Your task to perform on an android device: Search for the best pizza restaurants on Maps Image 0: 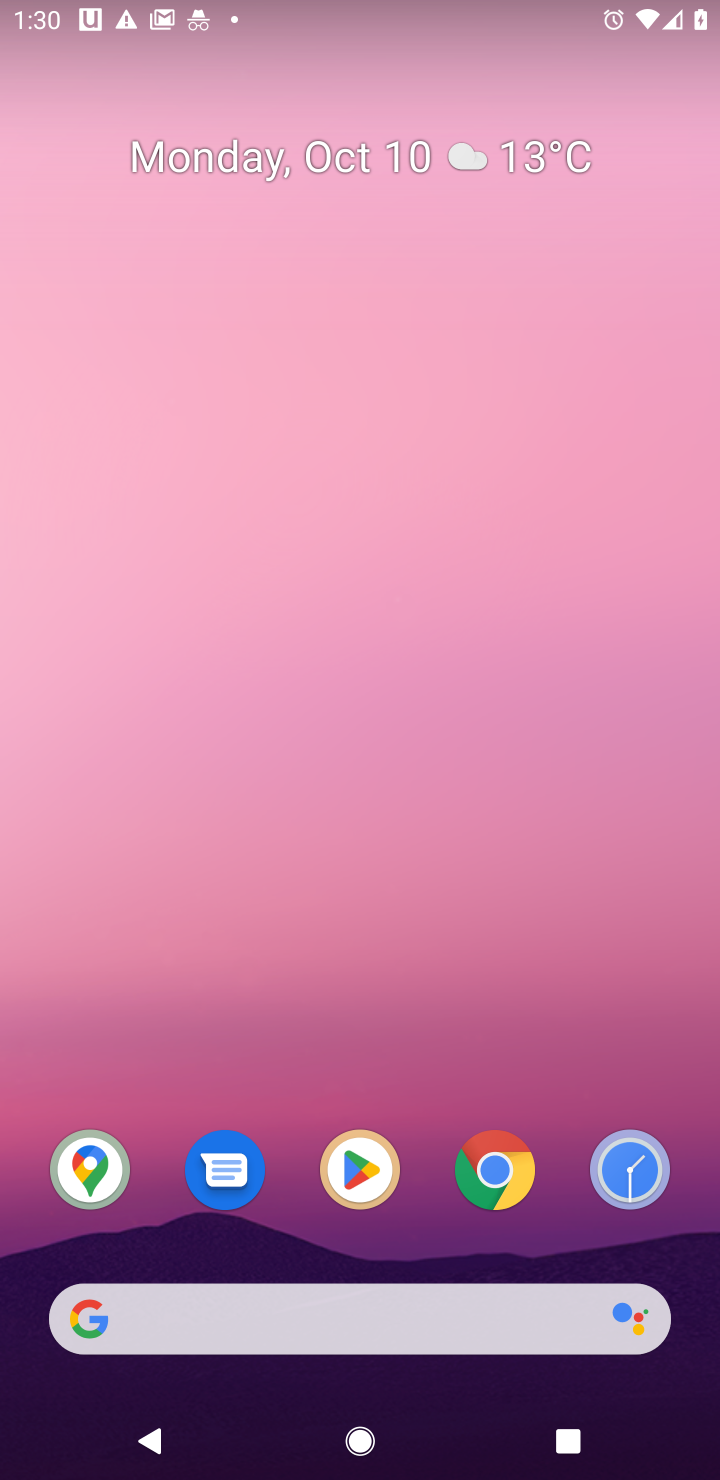
Step 0: click (96, 1170)
Your task to perform on an android device: Search for the best pizza restaurants on Maps Image 1: 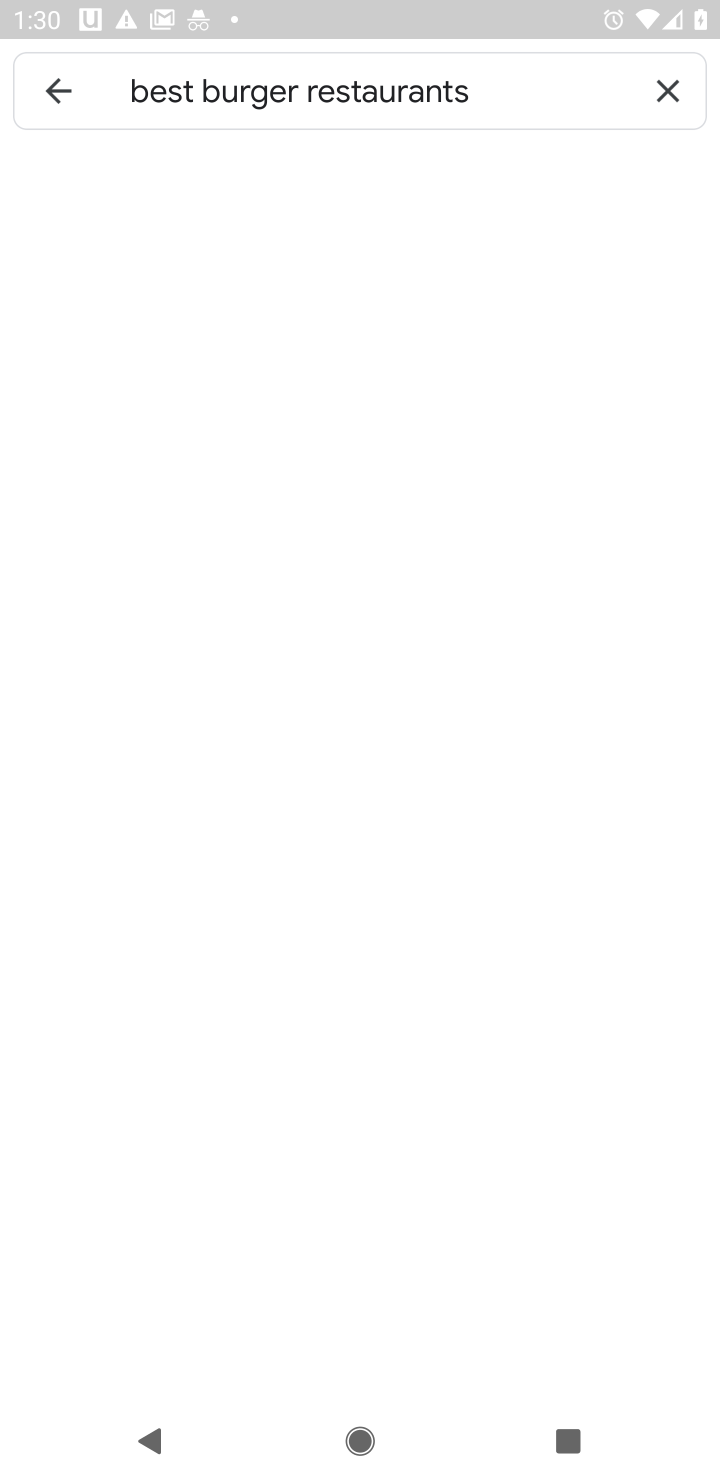
Step 1: click (658, 91)
Your task to perform on an android device: Search for the best pizza restaurants on Maps Image 2: 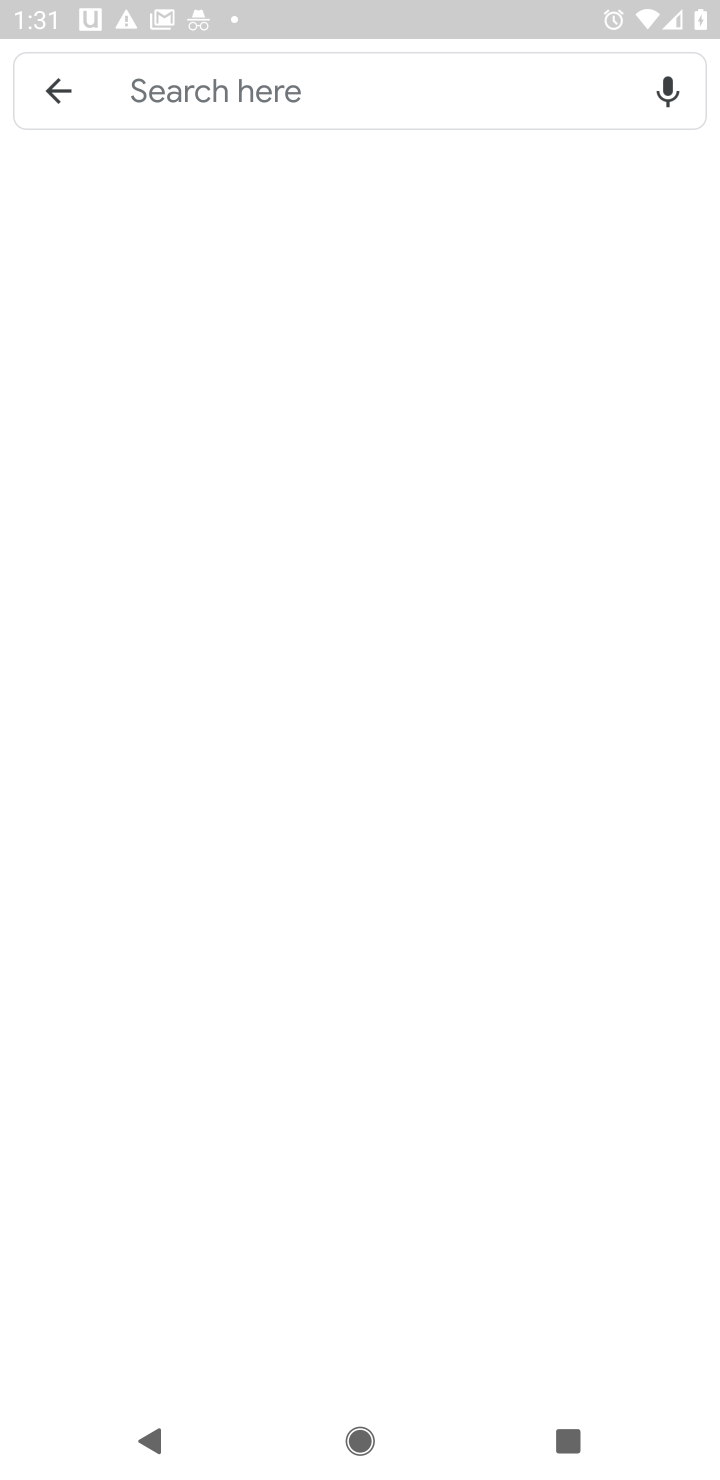
Step 2: type "best pizza restaurants "
Your task to perform on an android device: Search for the best pizza restaurants on Maps Image 3: 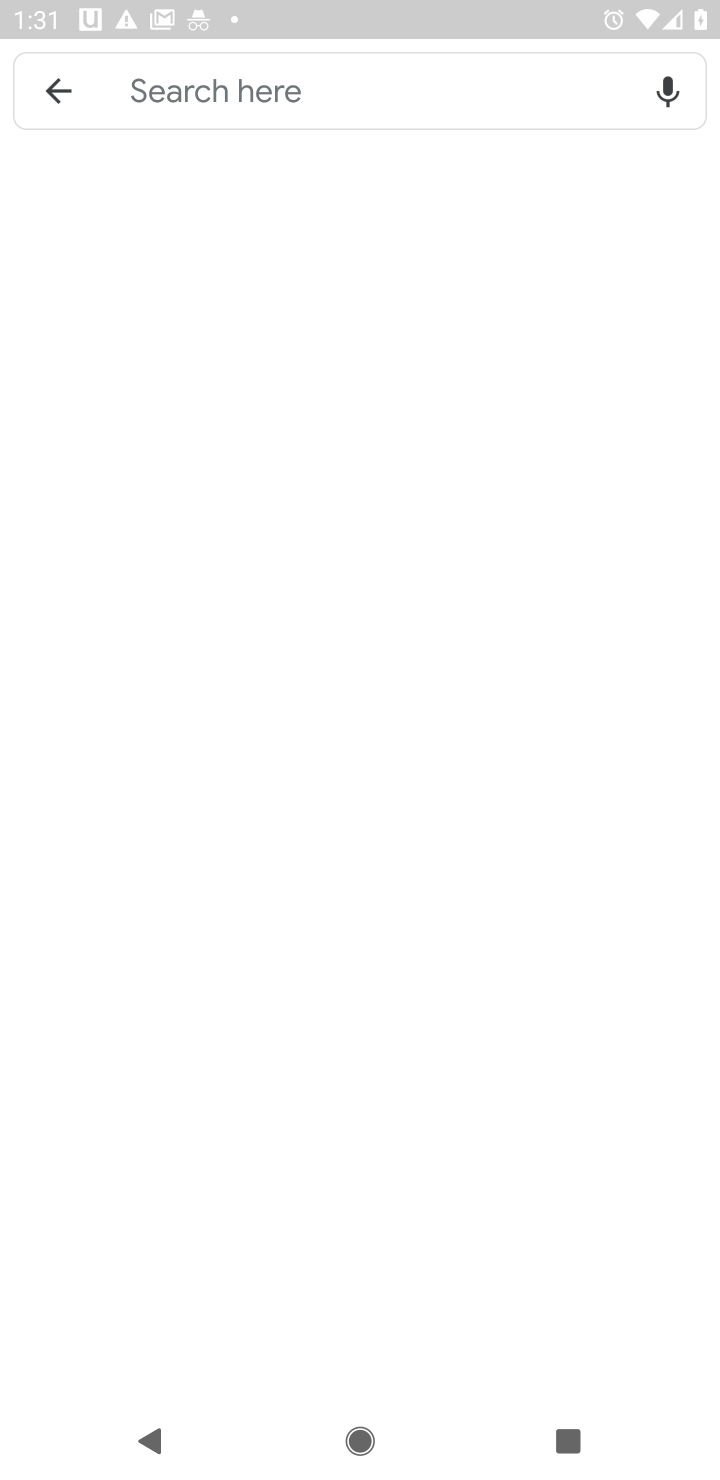
Step 3: type ""
Your task to perform on an android device: Search for the best pizza restaurants on Maps Image 4: 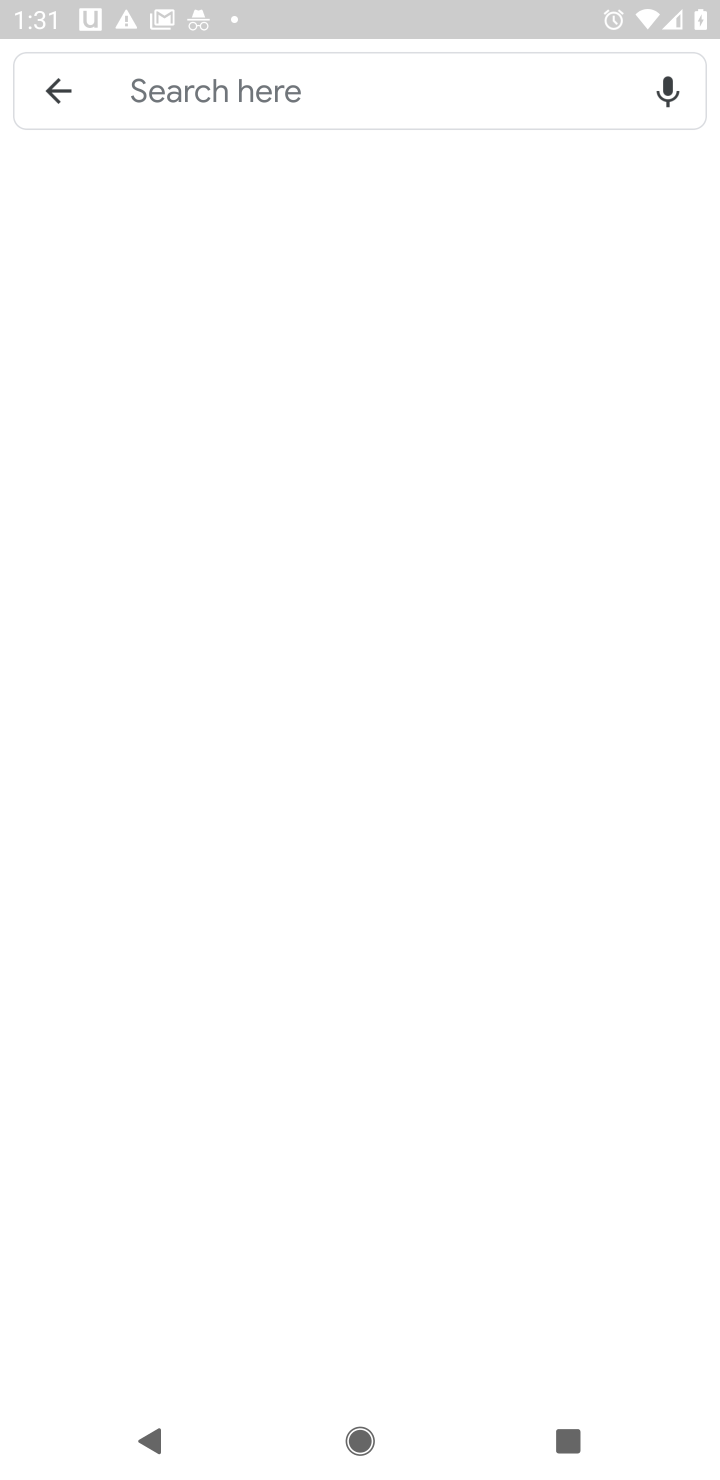
Step 4: click (207, 87)
Your task to perform on an android device: Search for the best pizza restaurants on Maps Image 5: 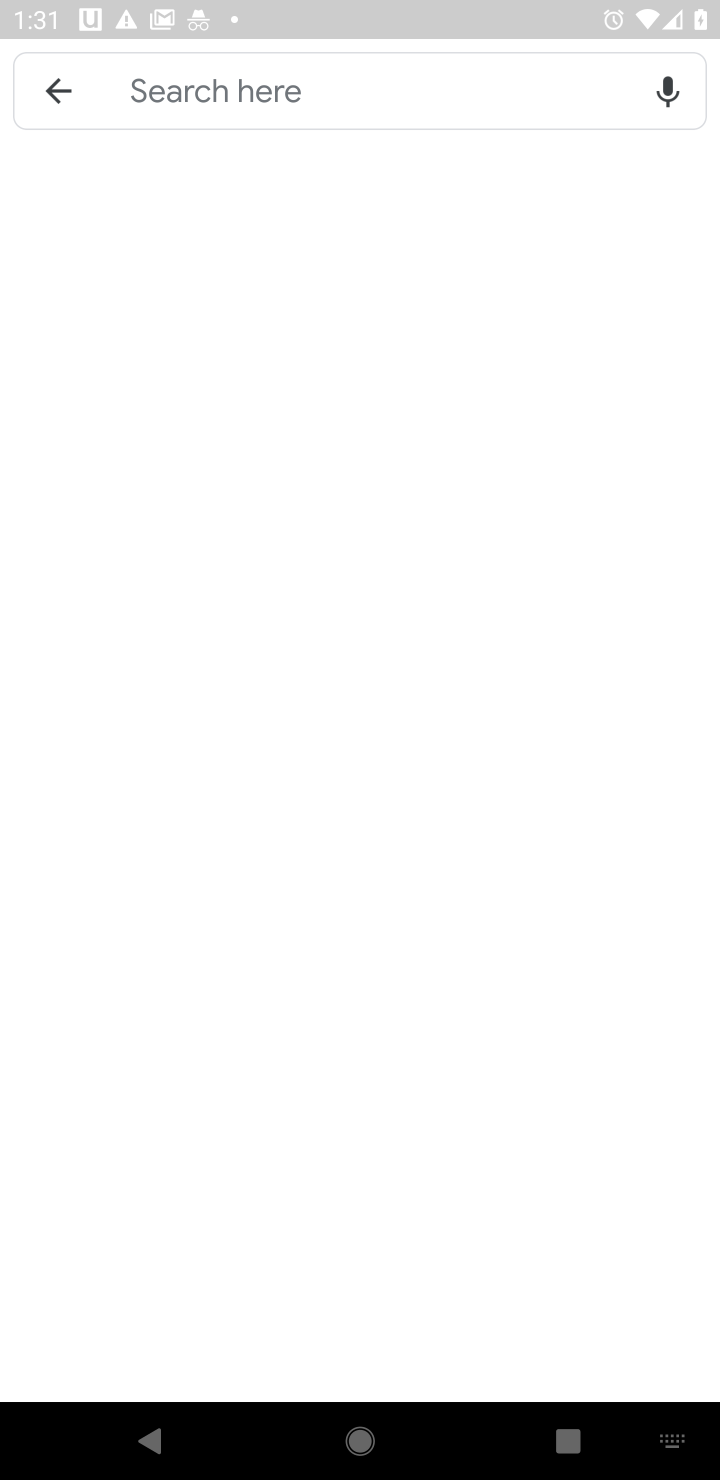
Step 5: type "best pizza restaurants "
Your task to perform on an android device: Search for the best pizza restaurants on Maps Image 6: 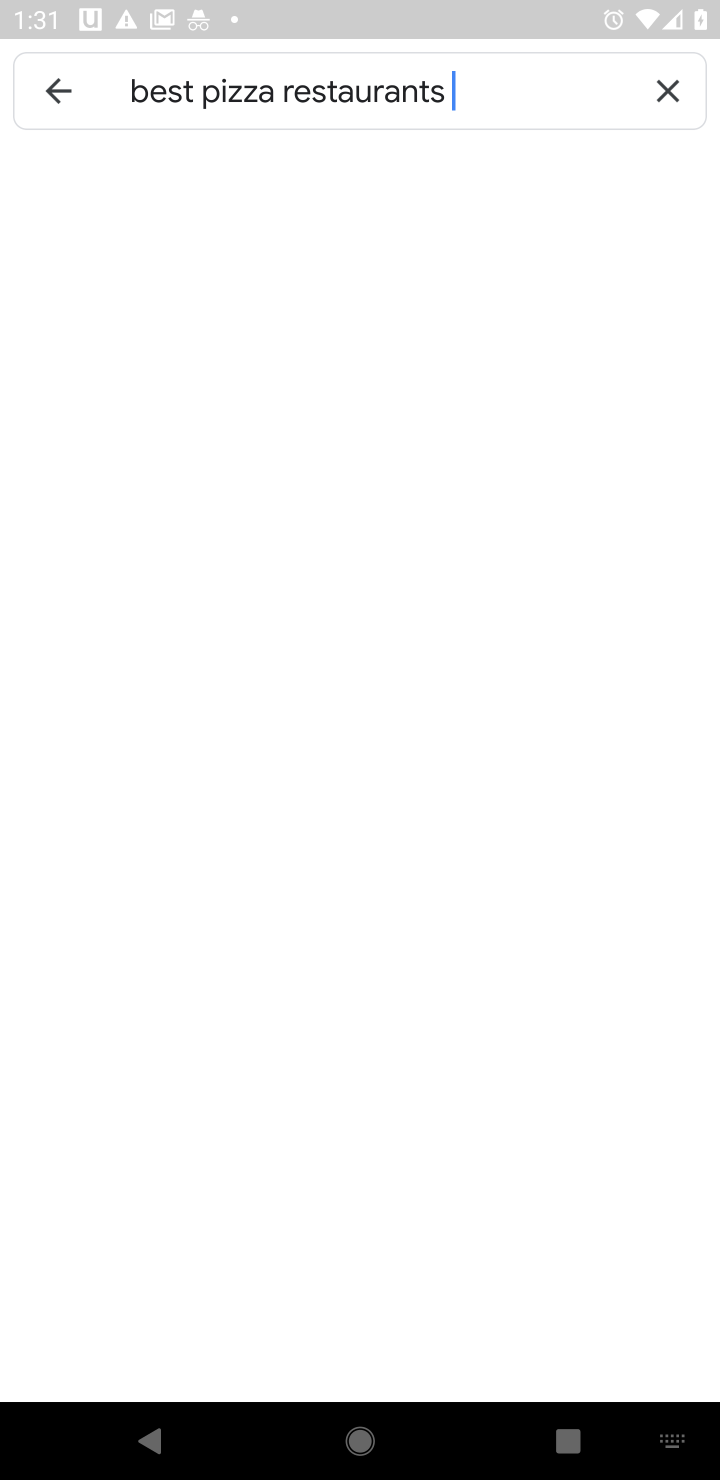
Step 6: type ""
Your task to perform on an android device: Search for the best pizza restaurants on Maps Image 7: 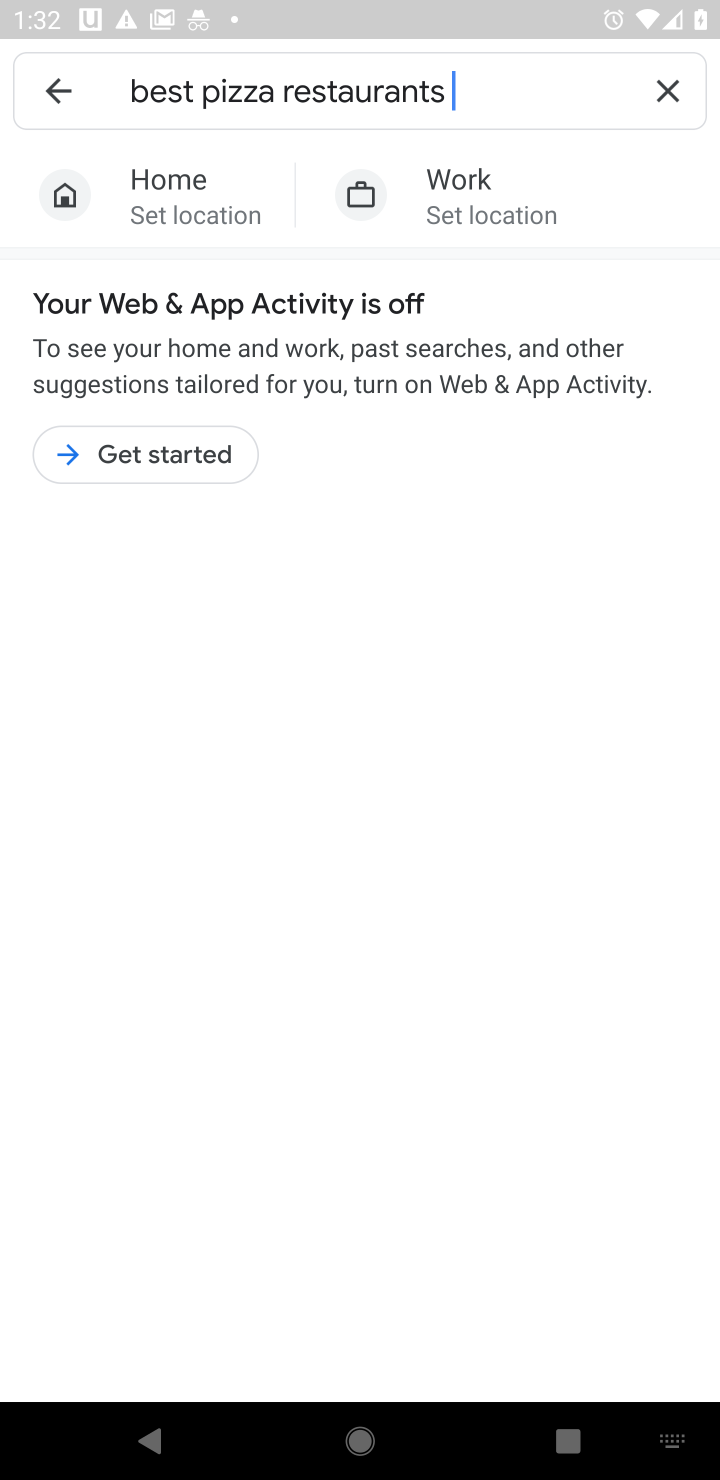
Step 7: click (226, 459)
Your task to perform on an android device: Search for the best pizza restaurants on Maps Image 8: 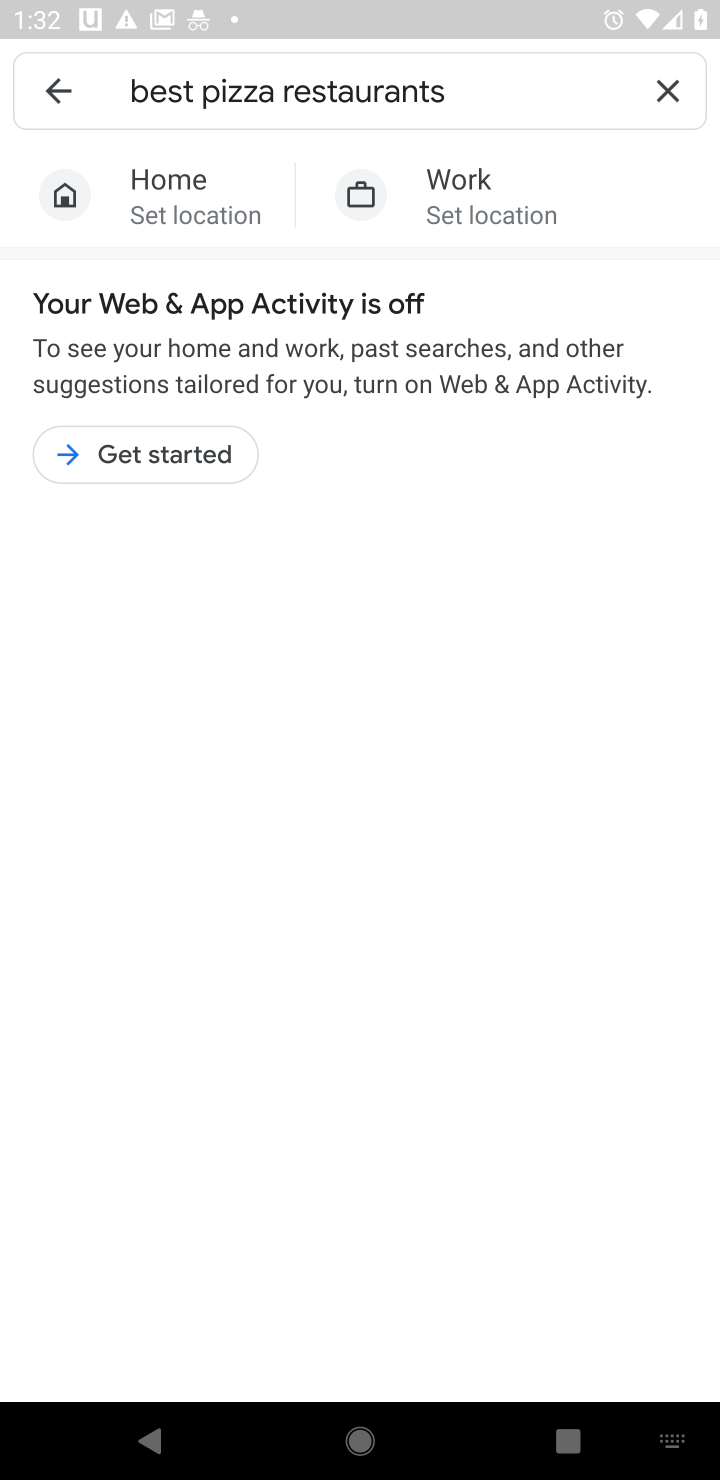
Step 8: click (226, 461)
Your task to perform on an android device: Search for the best pizza restaurants on Maps Image 9: 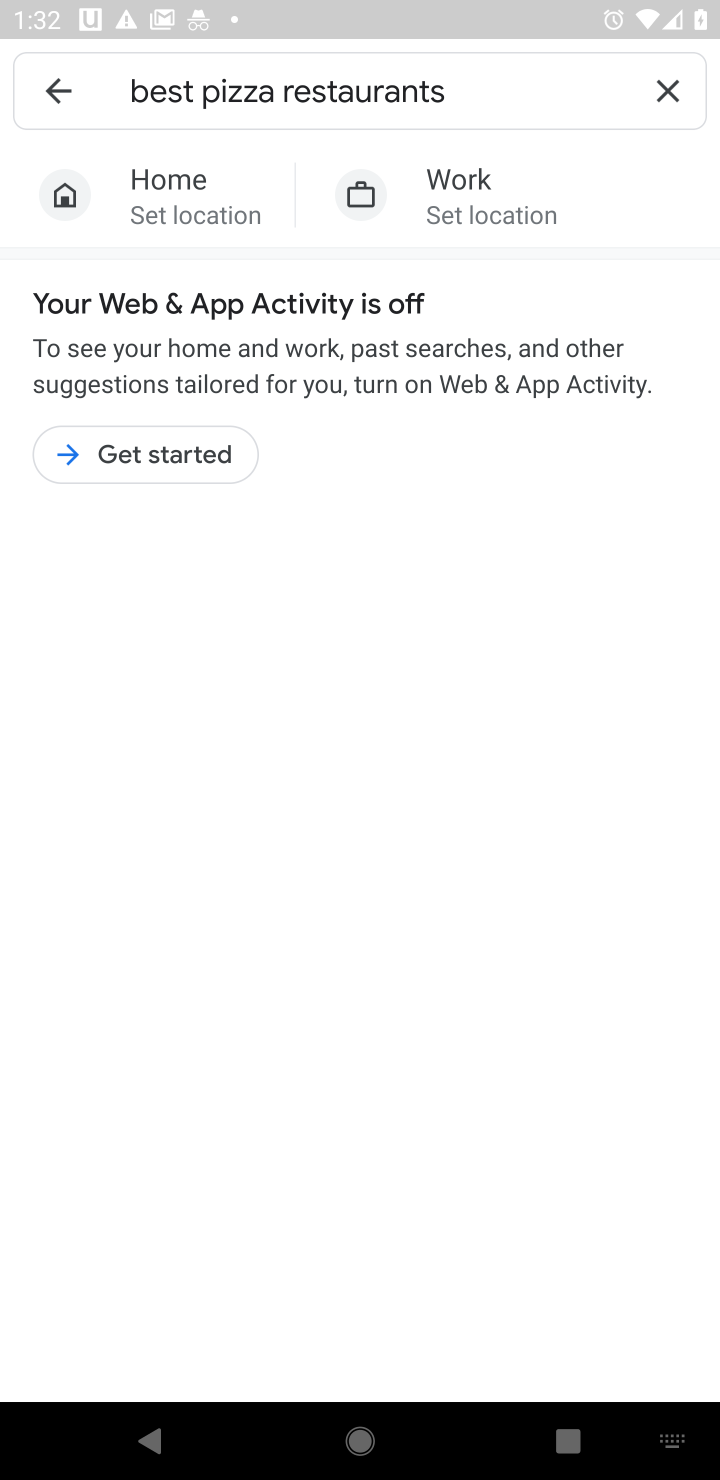
Step 9: click (180, 201)
Your task to perform on an android device: Search for the best pizza restaurants on Maps Image 10: 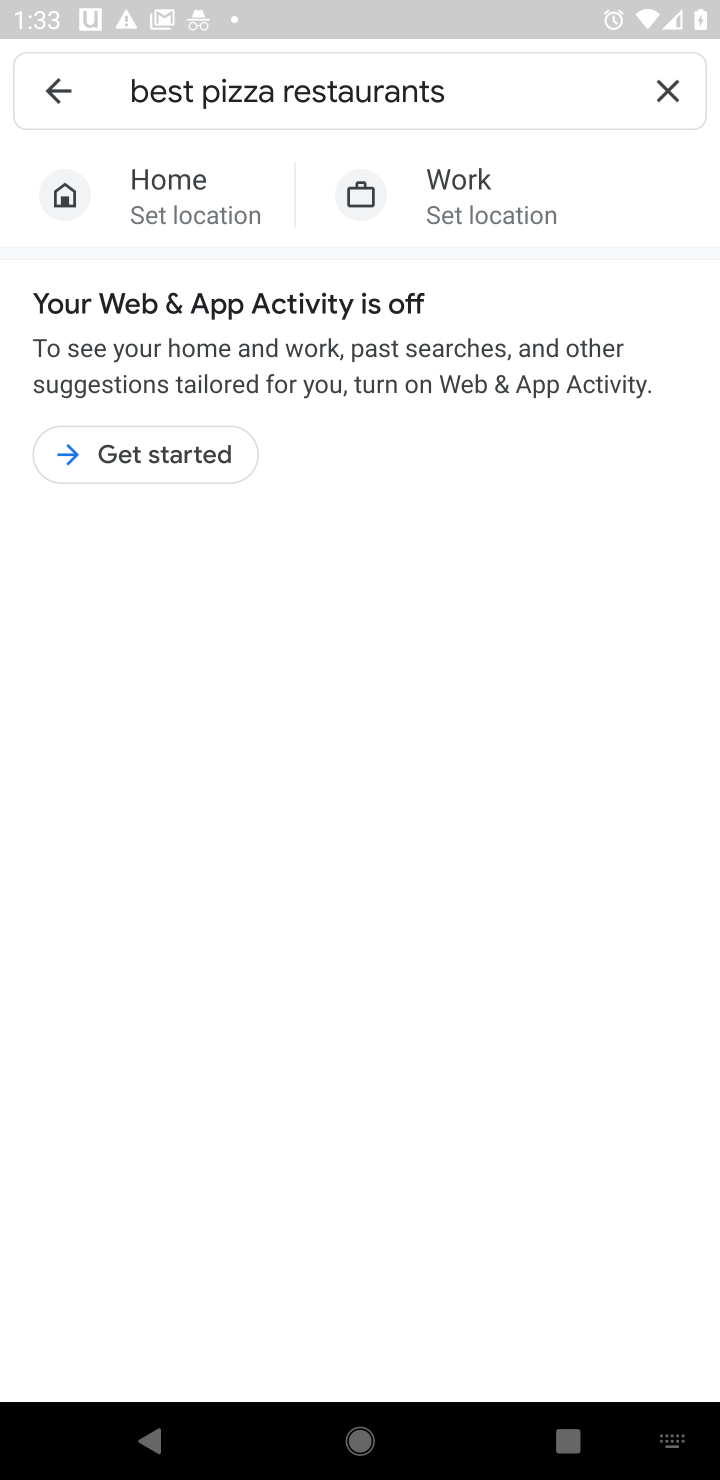
Step 10: click (205, 469)
Your task to perform on an android device: Search for the best pizza restaurants on Maps Image 11: 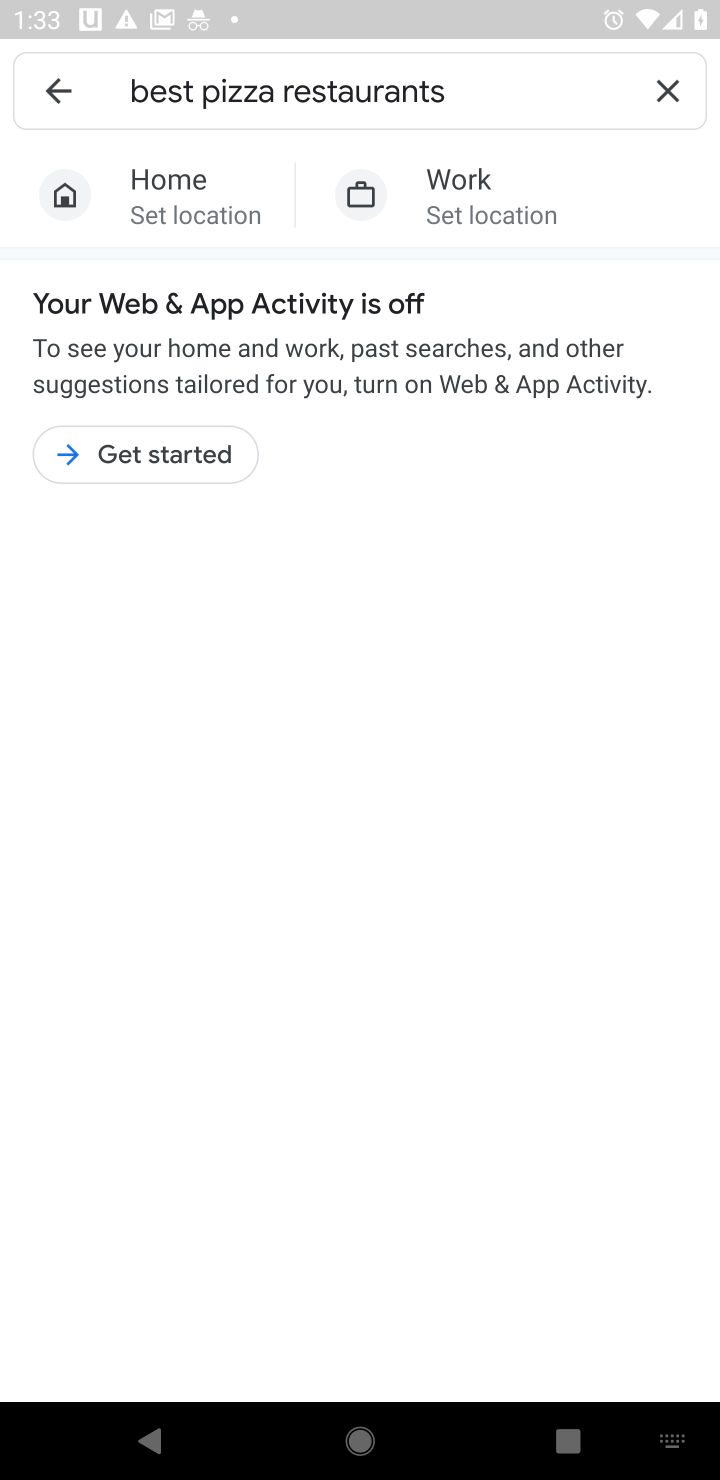
Step 11: task complete